Your task to perform on an android device: Show the shopping cart on costco. Search for usb-b on costco, select the first entry, and add it to the cart. Image 0: 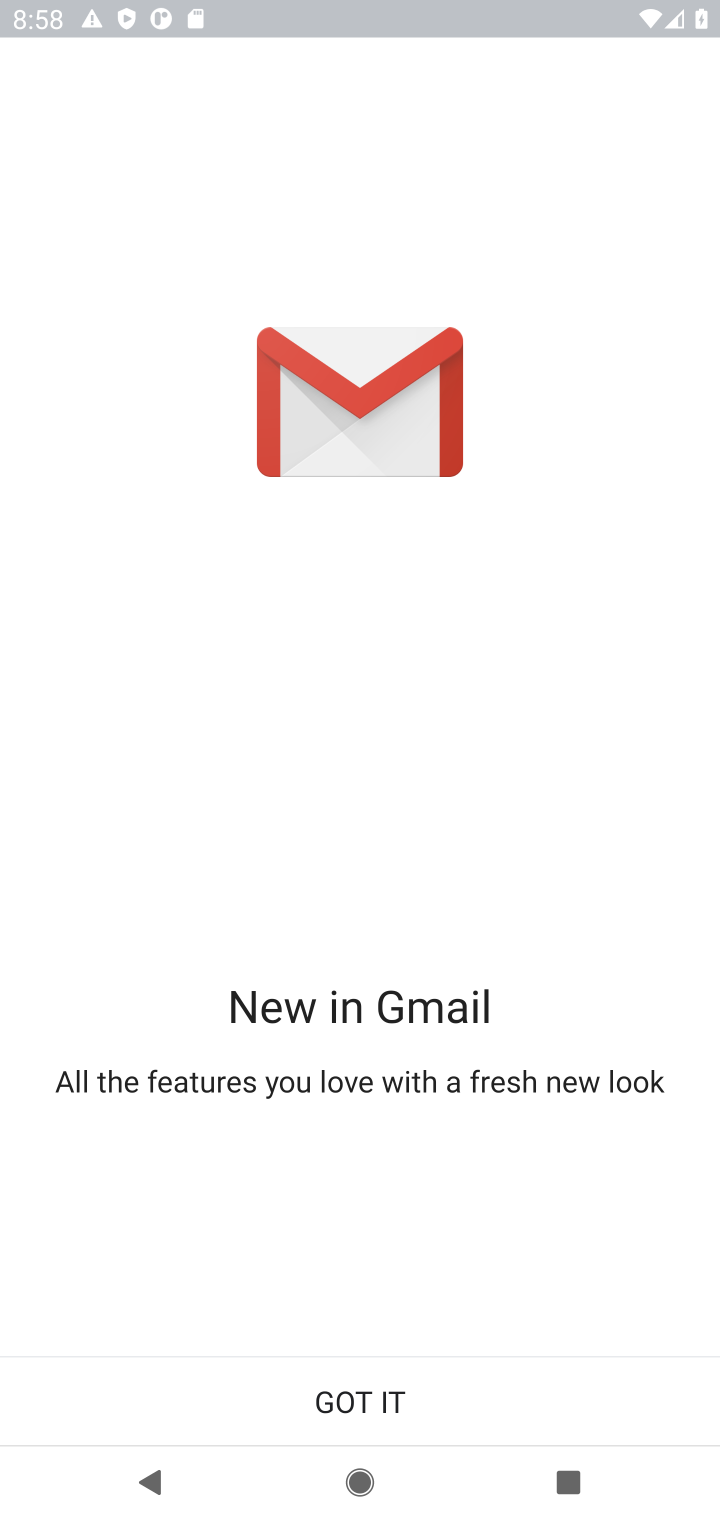
Step 0: press home button
Your task to perform on an android device: Show the shopping cart on costco. Search for usb-b on costco, select the first entry, and add it to the cart. Image 1: 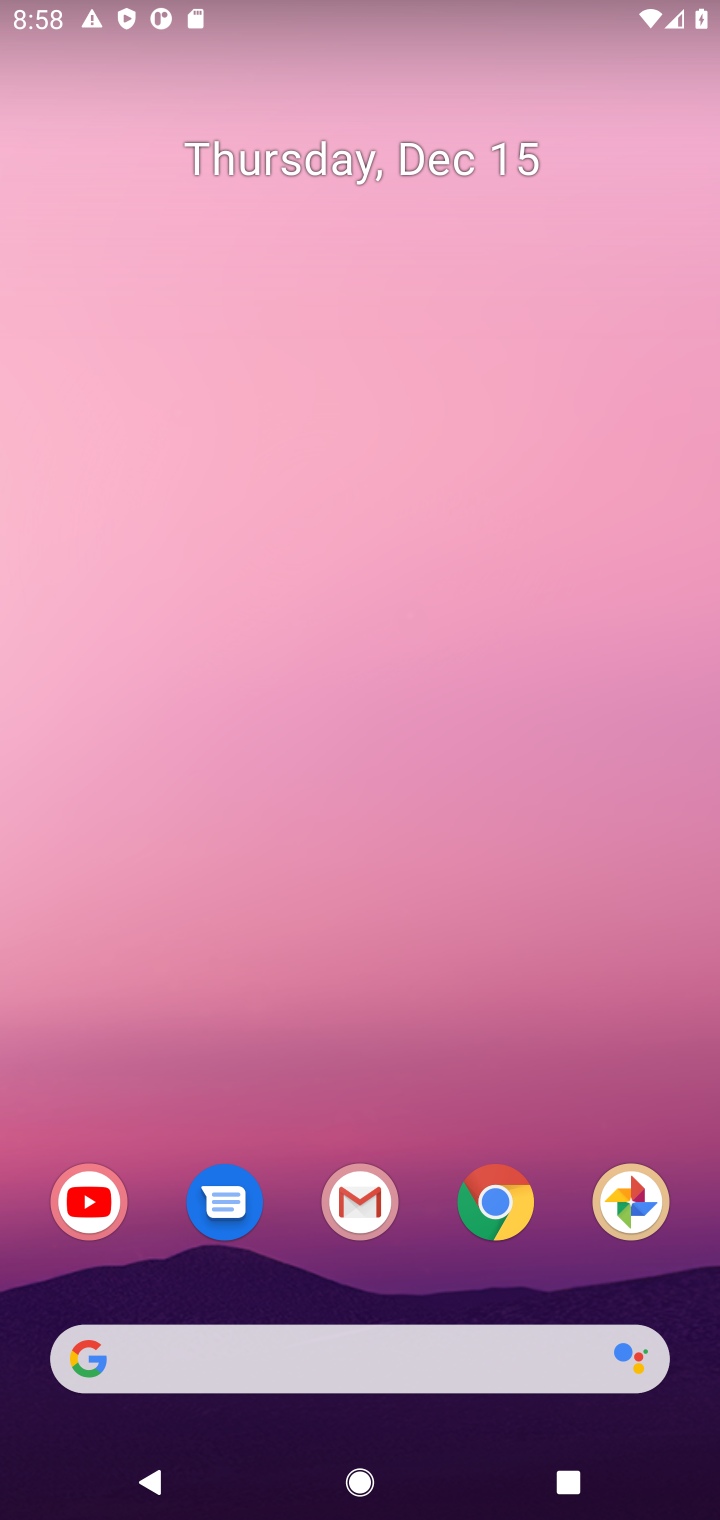
Step 1: click (506, 1207)
Your task to perform on an android device: Show the shopping cart on costco. Search for usb-b on costco, select the first entry, and add it to the cart. Image 2: 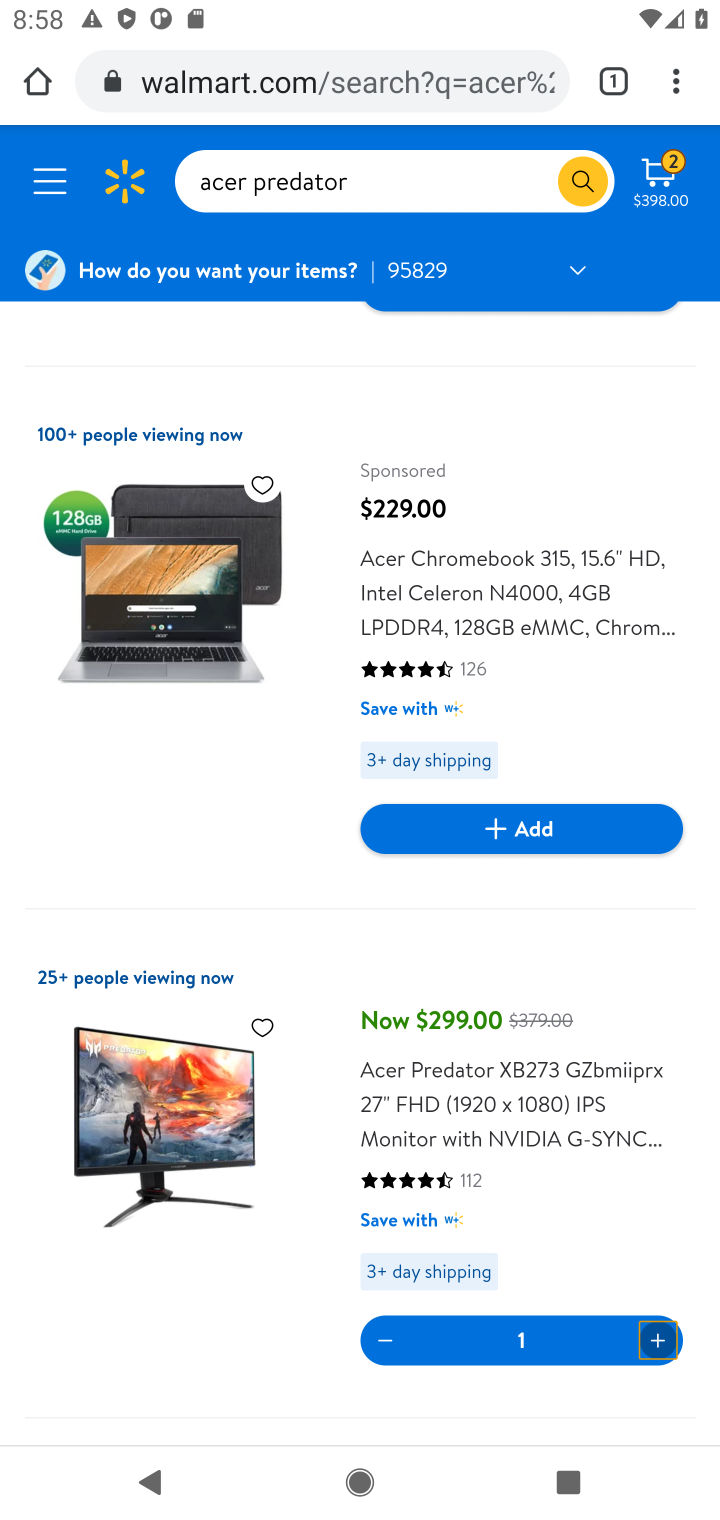
Step 2: click (282, 95)
Your task to perform on an android device: Show the shopping cart on costco. Search for usb-b on costco, select the first entry, and add it to the cart. Image 3: 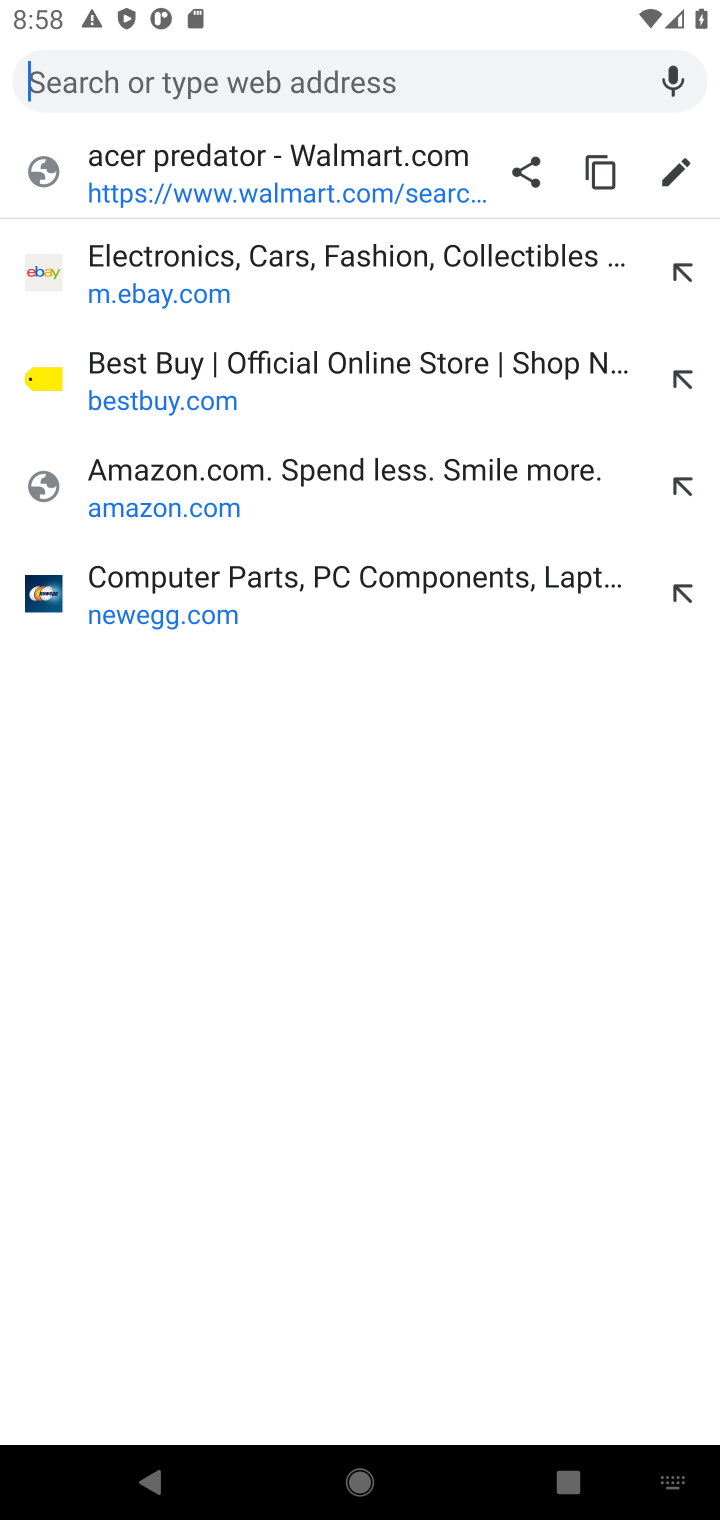
Step 3: type "costco.com"
Your task to perform on an android device: Show the shopping cart on costco. Search for usb-b on costco, select the first entry, and add it to the cart. Image 4: 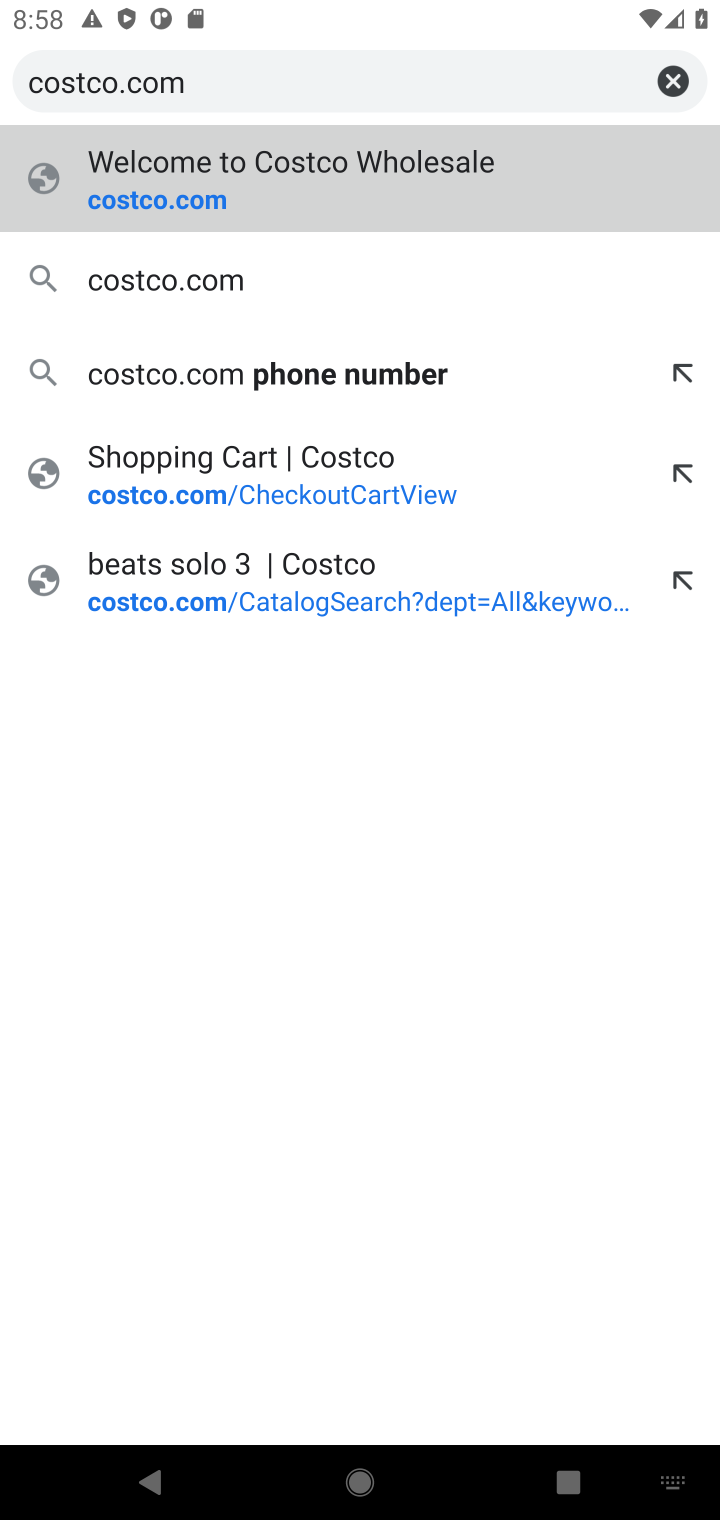
Step 4: click (166, 207)
Your task to perform on an android device: Show the shopping cart on costco. Search for usb-b on costco, select the first entry, and add it to the cart. Image 5: 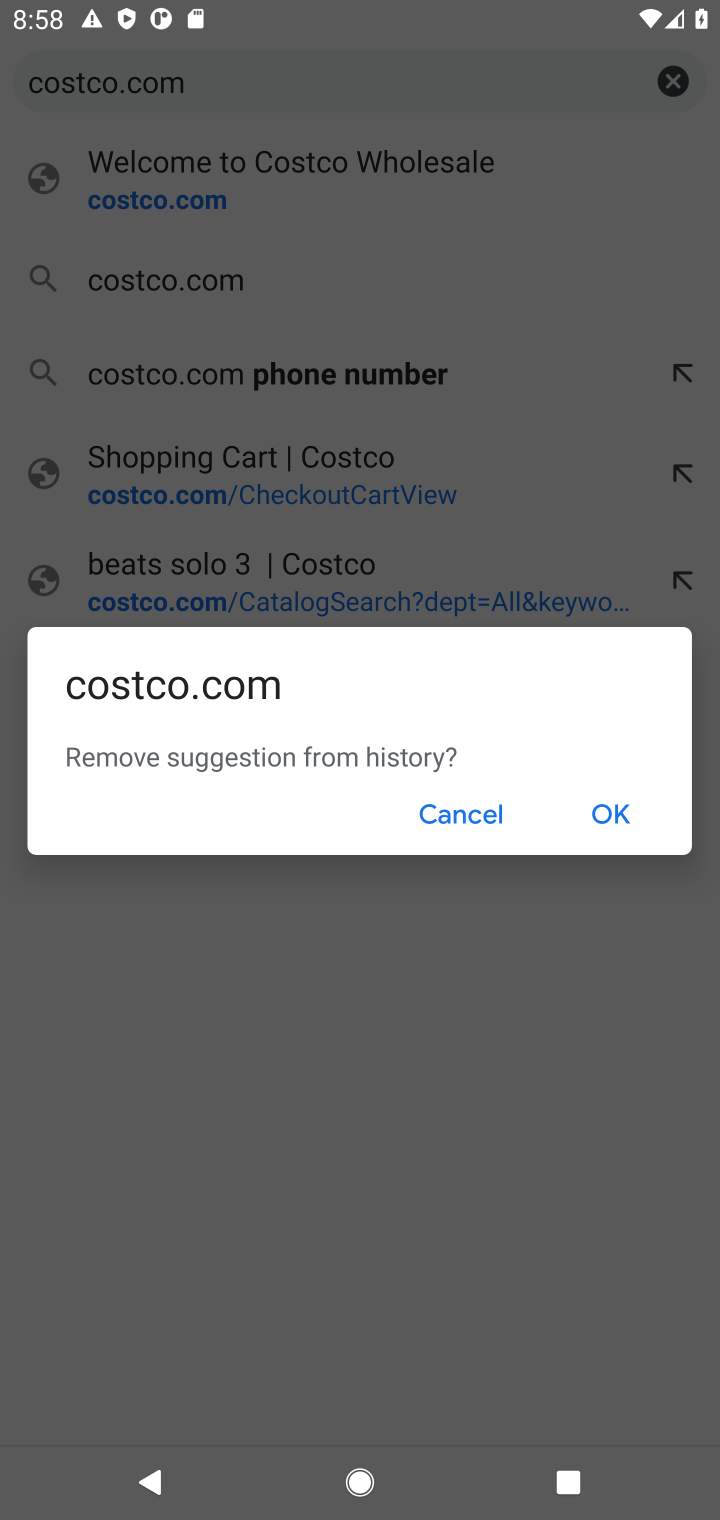
Step 5: click (454, 830)
Your task to perform on an android device: Show the shopping cart on costco. Search for usb-b on costco, select the first entry, and add it to the cart. Image 6: 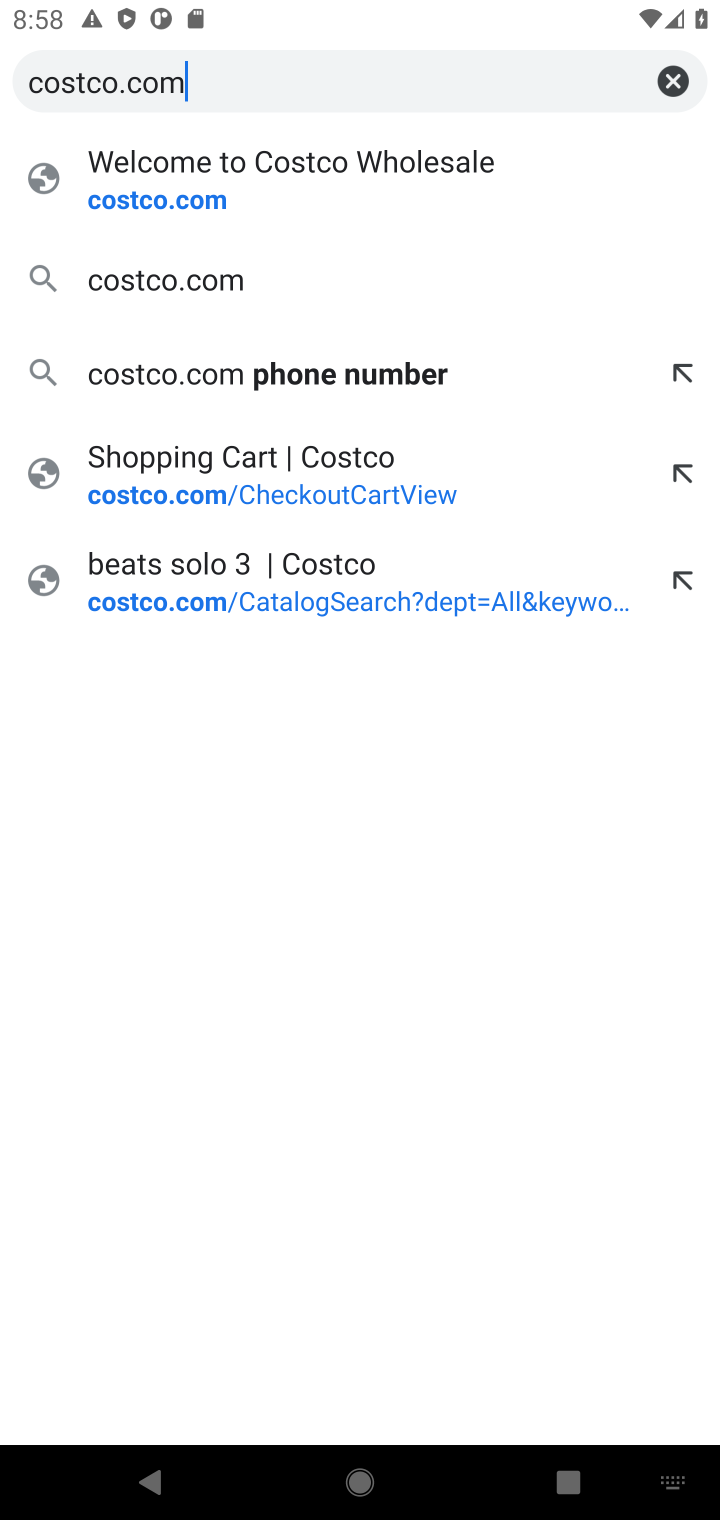
Step 6: click (142, 192)
Your task to perform on an android device: Show the shopping cart on costco. Search for usb-b on costco, select the first entry, and add it to the cart. Image 7: 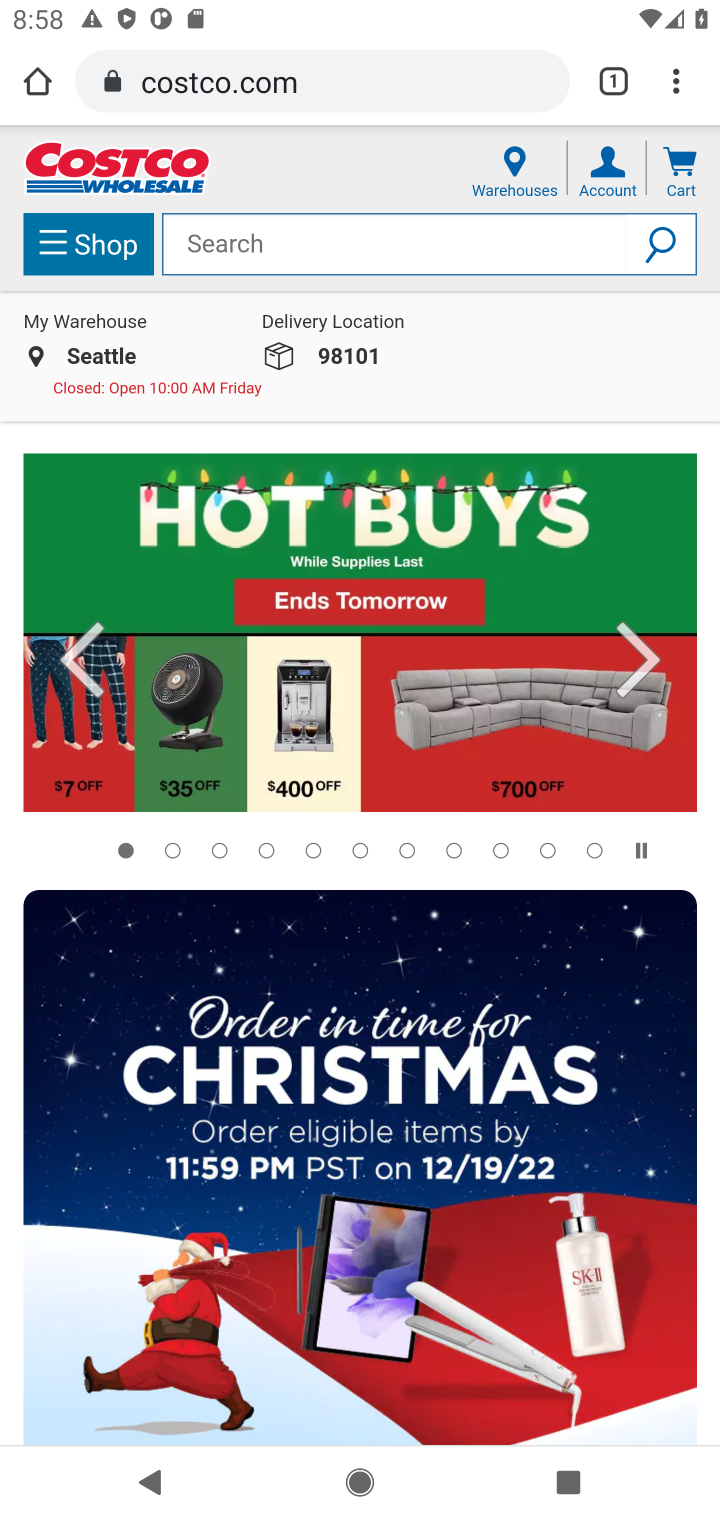
Step 7: click (676, 166)
Your task to perform on an android device: Show the shopping cart on costco. Search for usb-b on costco, select the first entry, and add it to the cart. Image 8: 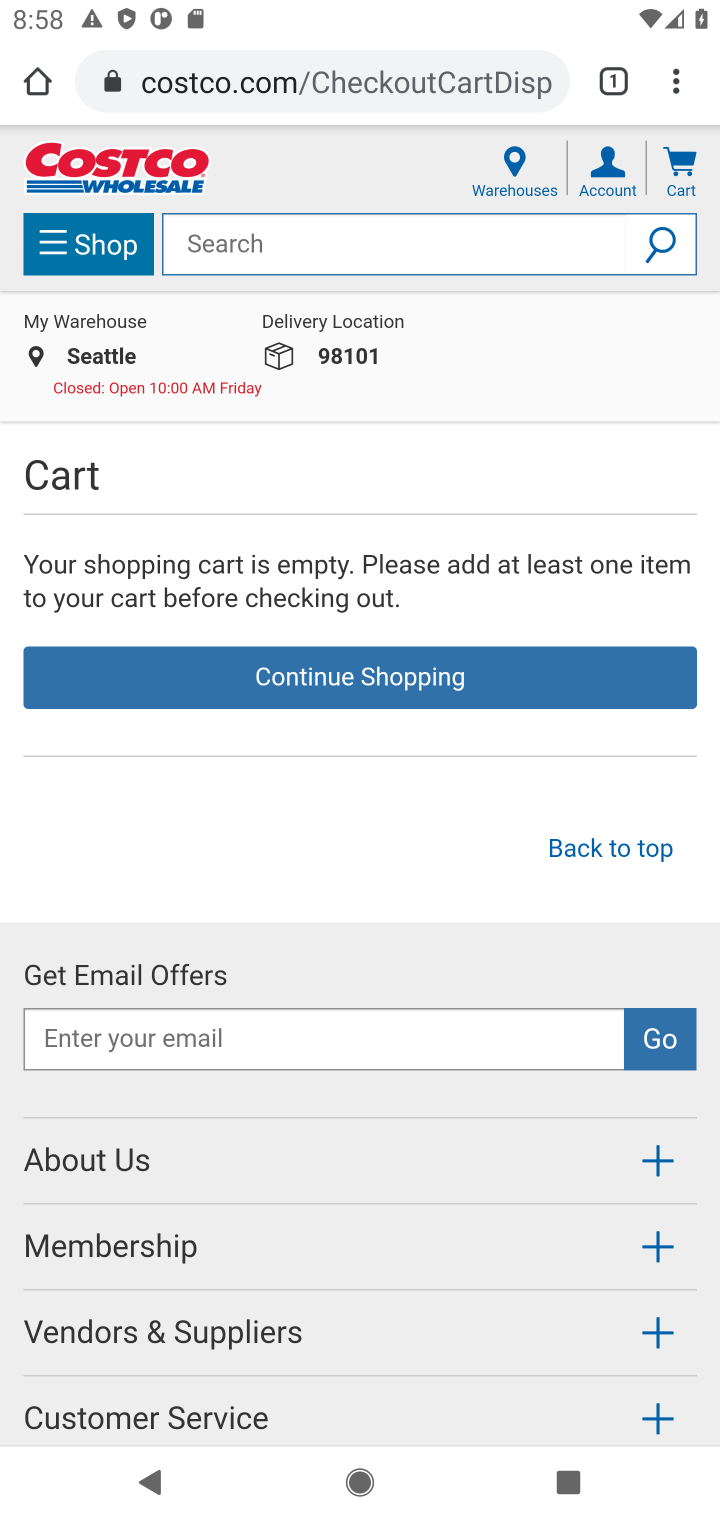
Step 8: click (233, 254)
Your task to perform on an android device: Show the shopping cart on costco. Search for usb-b on costco, select the first entry, and add it to the cart. Image 9: 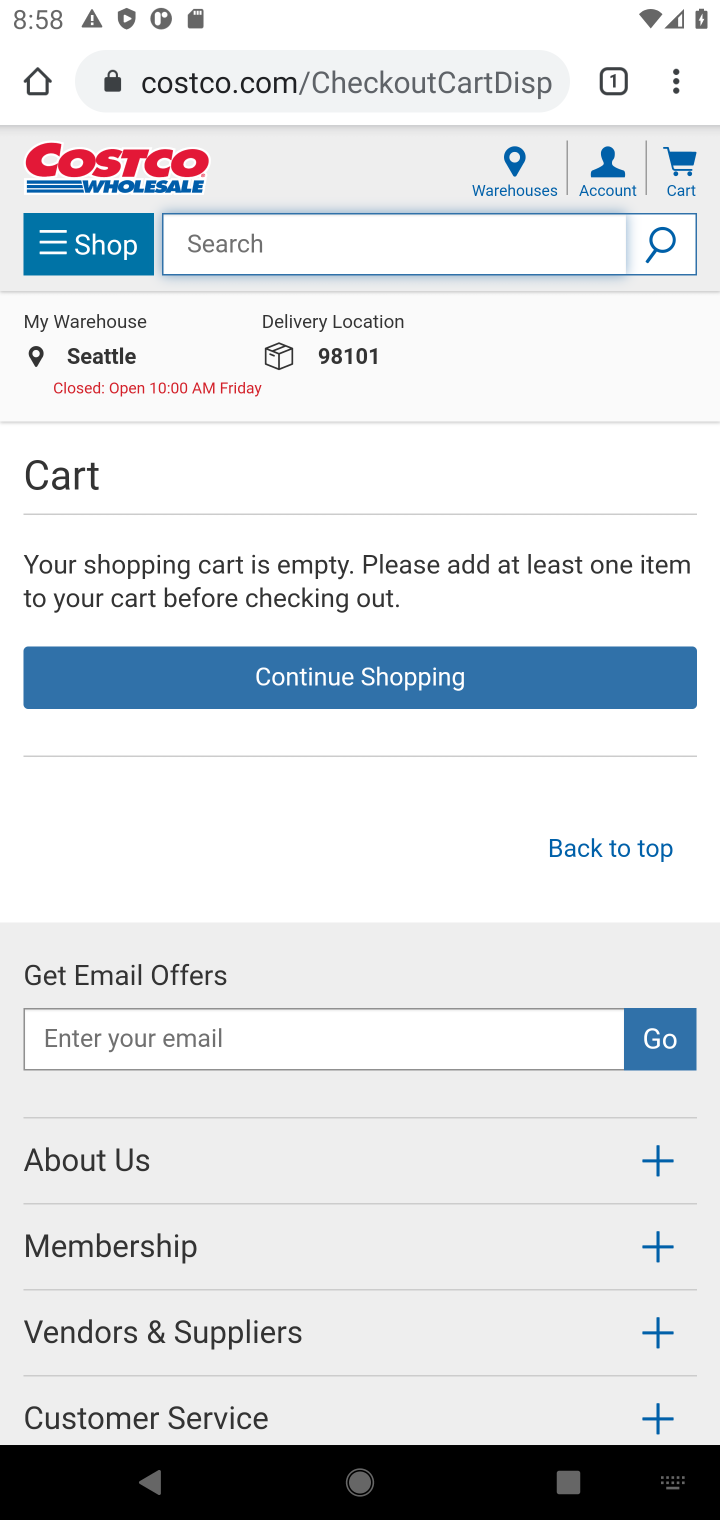
Step 9: type "usb-b"
Your task to perform on an android device: Show the shopping cart on costco. Search for usb-b on costco, select the first entry, and add it to the cart. Image 10: 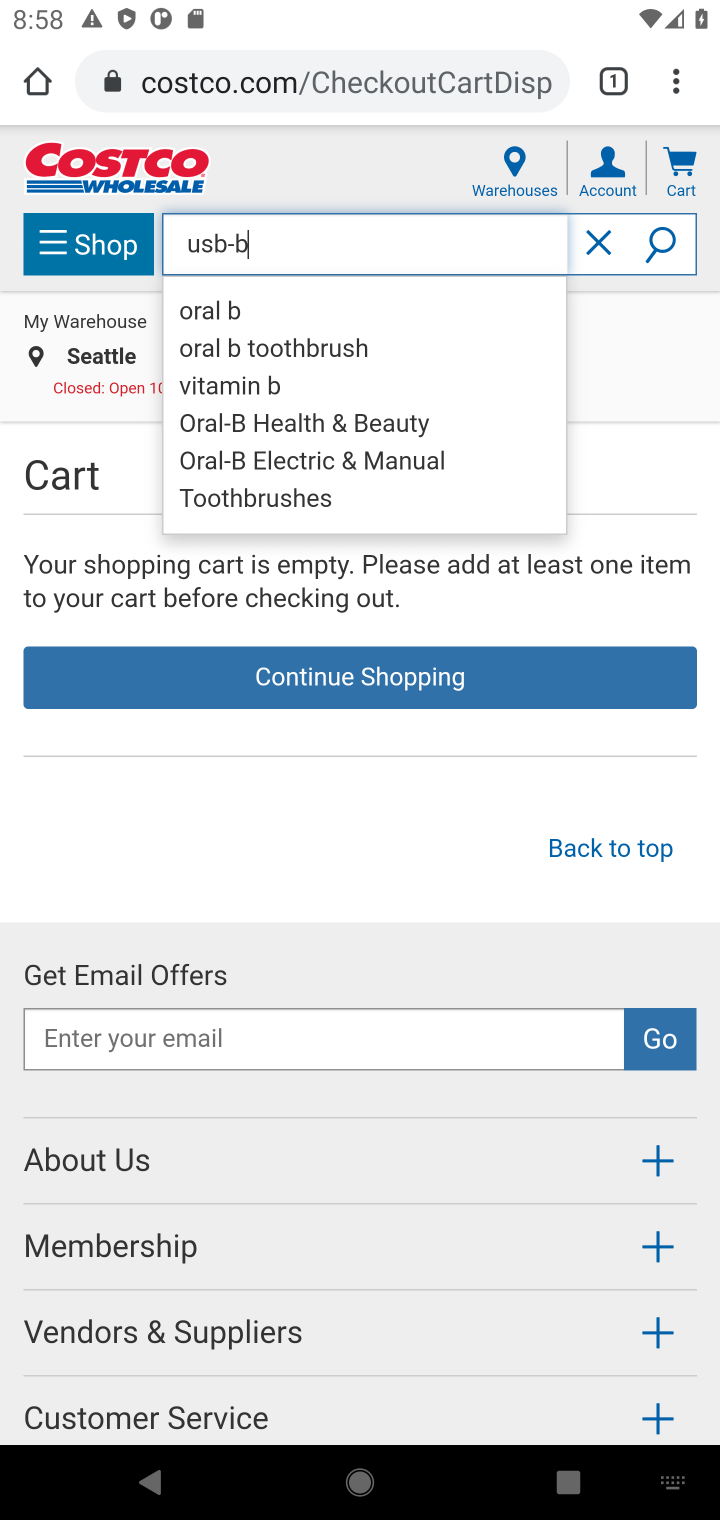
Step 10: click (672, 242)
Your task to perform on an android device: Show the shopping cart on costco. Search for usb-b on costco, select the first entry, and add it to the cart. Image 11: 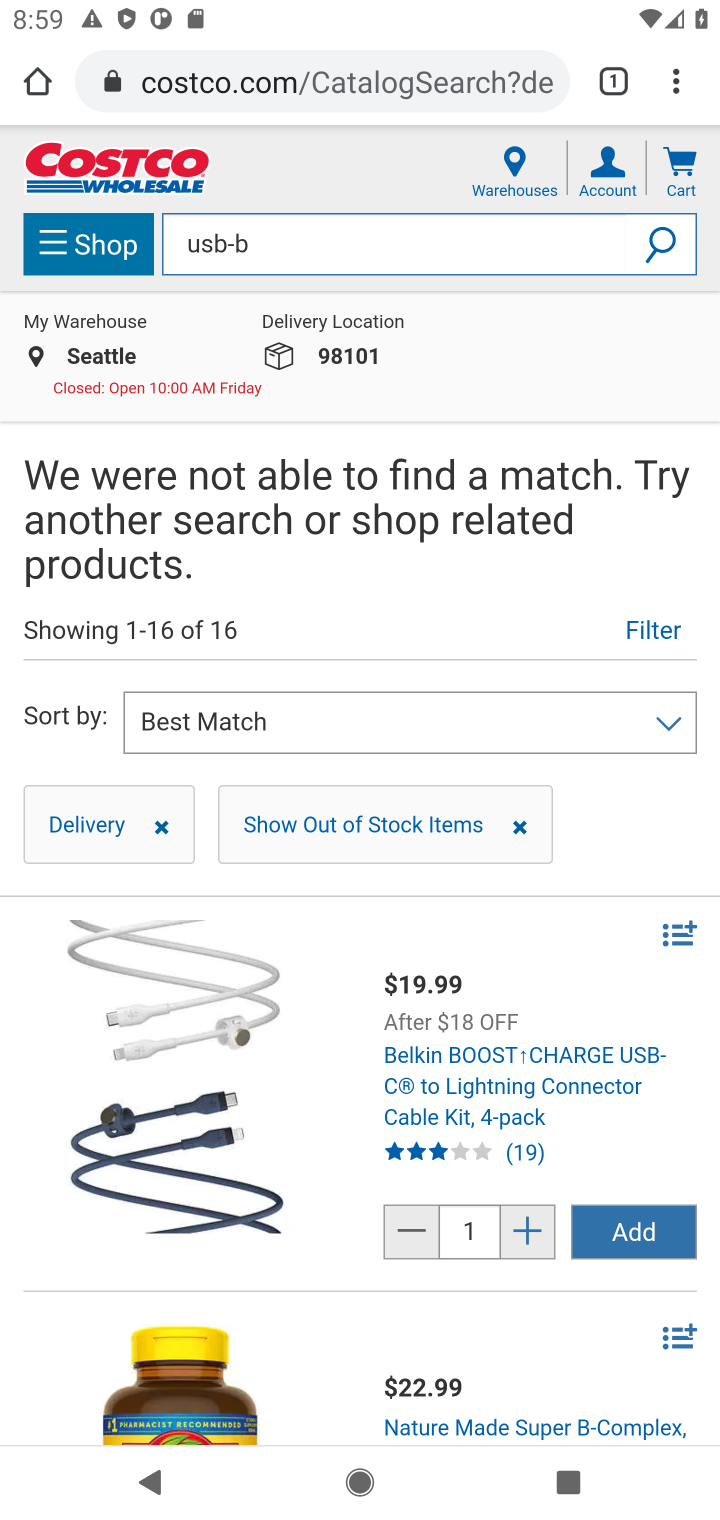
Step 11: task complete